Your task to perform on an android device: Go to location settings Image 0: 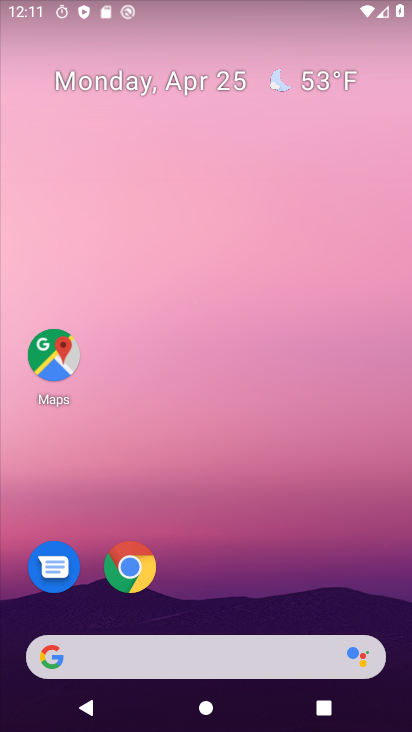
Step 0: drag from (252, 546) to (273, 88)
Your task to perform on an android device: Go to location settings Image 1: 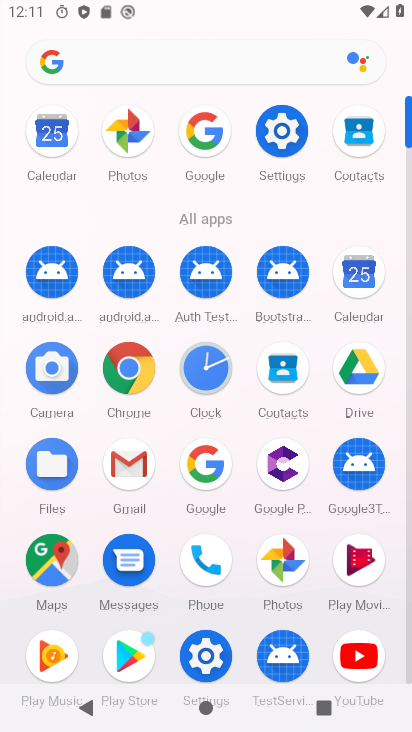
Step 1: click (273, 113)
Your task to perform on an android device: Go to location settings Image 2: 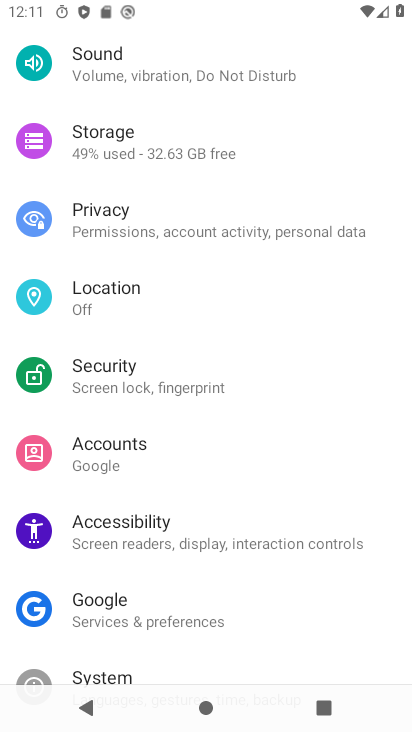
Step 2: click (175, 305)
Your task to perform on an android device: Go to location settings Image 3: 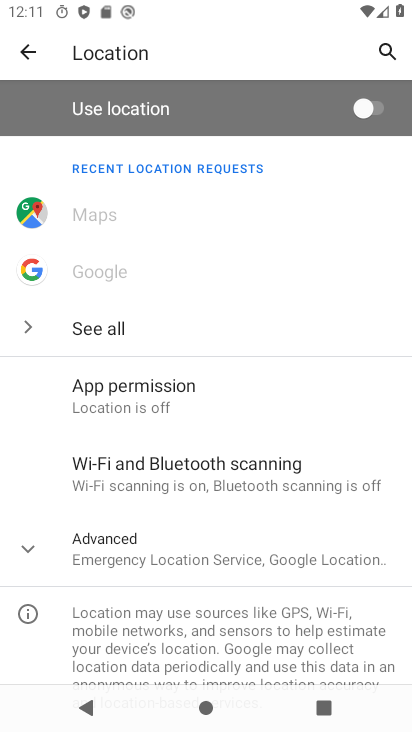
Step 3: task complete